Your task to perform on an android device: toggle priority inbox in the gmail app Image 0: 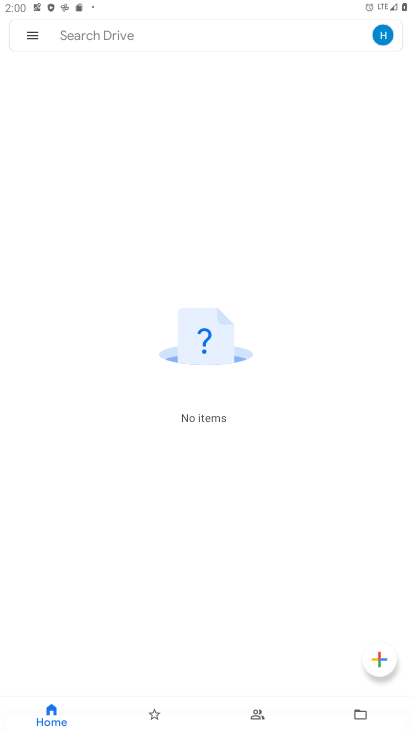
Step 0: press home button
Your task to perform on an android device: toggle priority inbox in the gmail app Image 1: 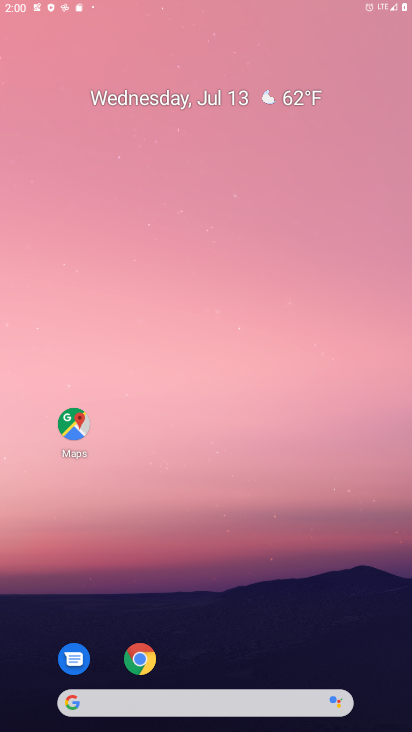
Step 1: drag from (230, 579) to (229, 36)
Your task to perform on an android device: toggle priority inbox in the gmail app Image 2: 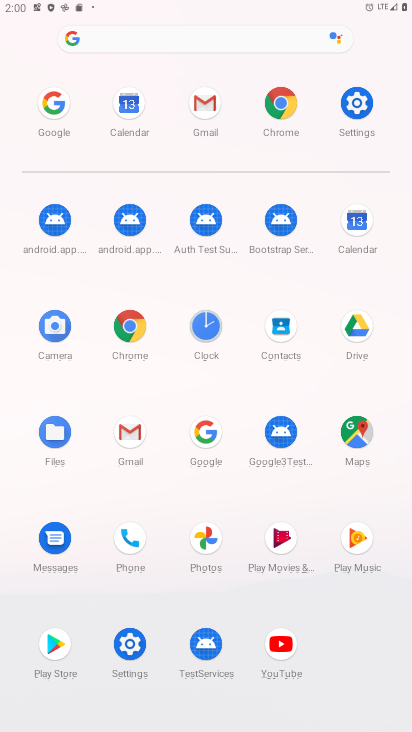
Step 2: click (130, 435)
Your task to perform on an android device: toggle priority inbox in the gmail app Image 3: 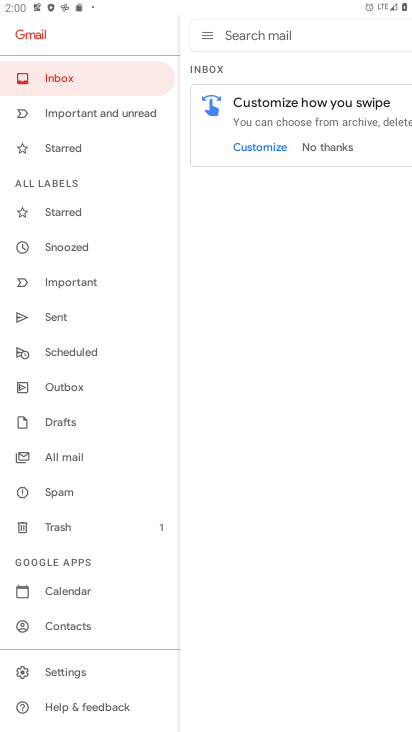
Step 3: click (69, 670)
Your task to perform on an android device: toggle priority inbox in the gmail app Image 4: 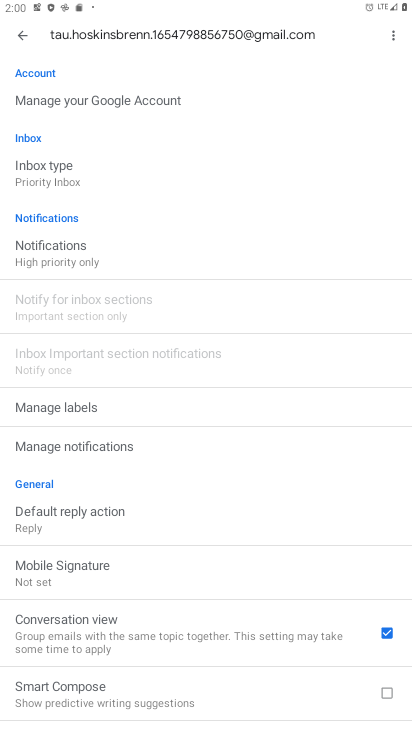
Step 4: click (45, 177)
Your task to perform on an android device: toggle priority inbox in the gmail app Image 5: 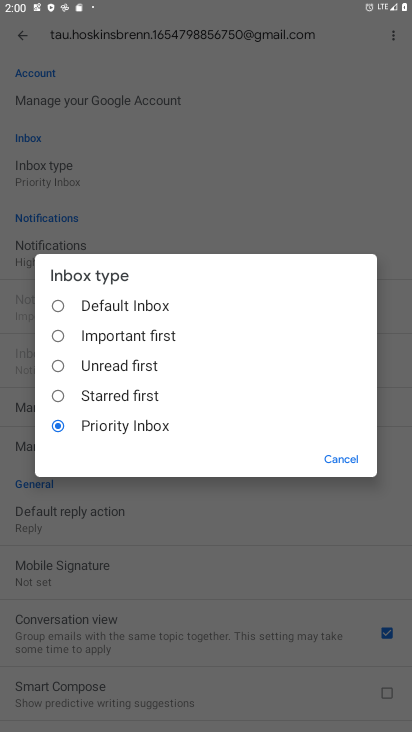
Step 5: click (60, 306)
Your task to perform on an android device: toggle priority inbox in the gmail app Image 6: 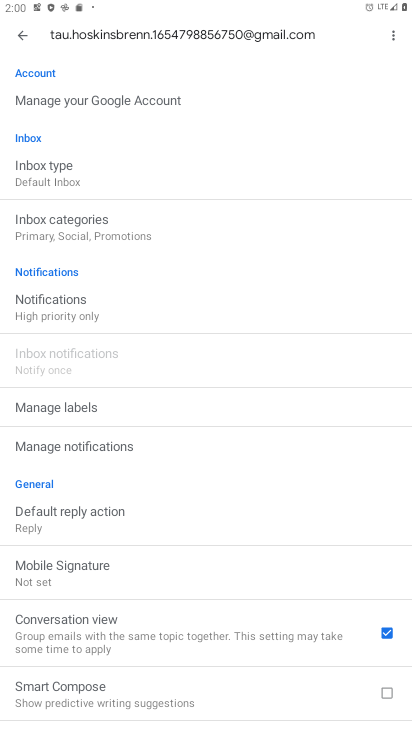
Step 6: task complete